Your task to perform on an android device: turn on the 12-hour format for clock Image 0: 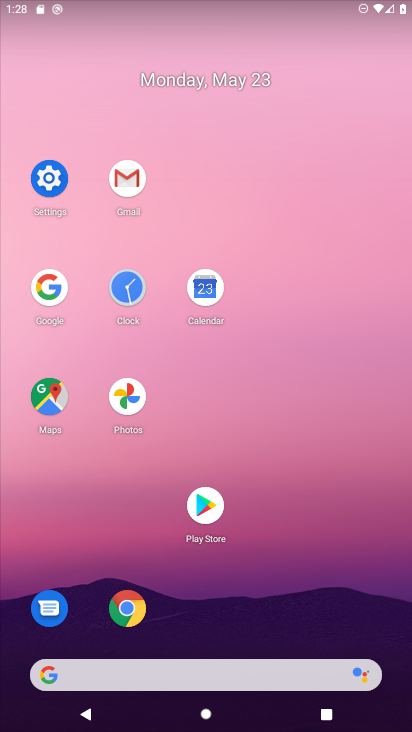
Step 0: click (132, 286)
Your task to perform on an android device: turn on the 12-hour format for clock Image 1: 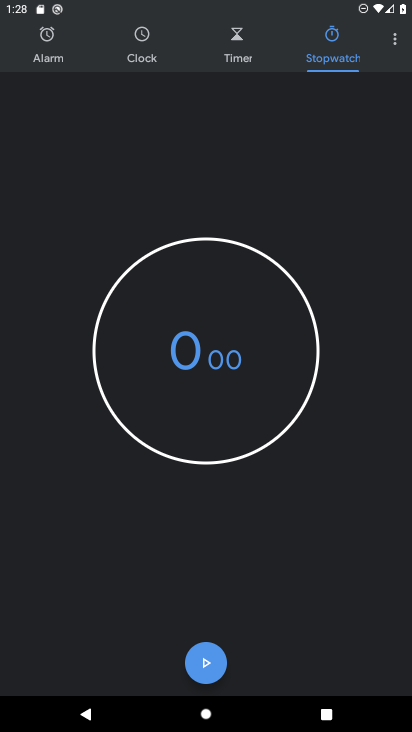
Step 1: click (395, 48)
Your task to perform on an android device: turn on the 12-hour format for clock Image 2: 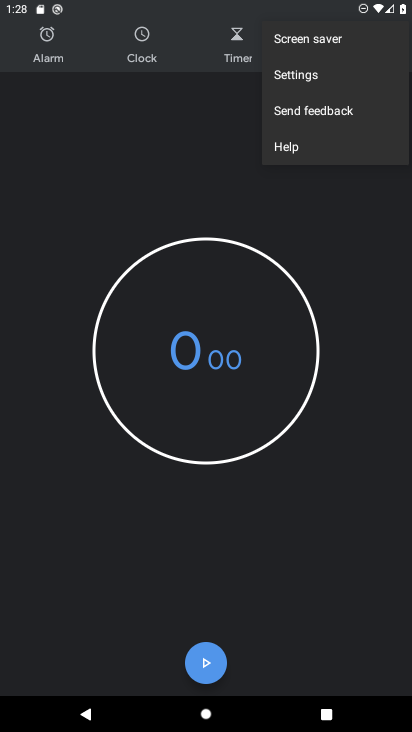
Step 2: click (320, 77)
Your task to perform on an android device: turn on the 12-hour format for clock Image 3: 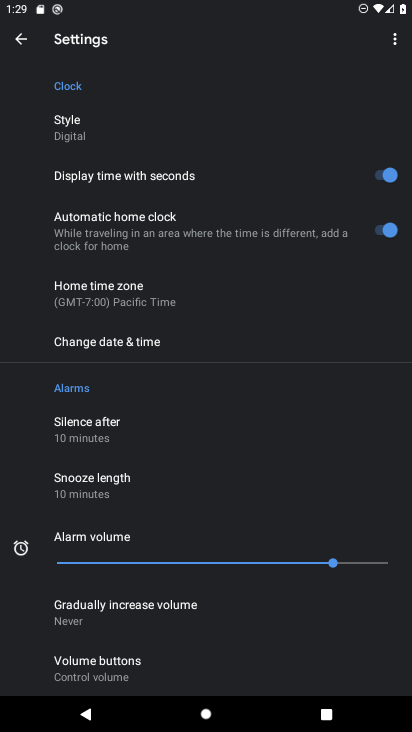
Step 3: drag from (277, 559) to (238, 210)
Your task to perform on an android device: turn on the 12-hour format for clock Image 4: 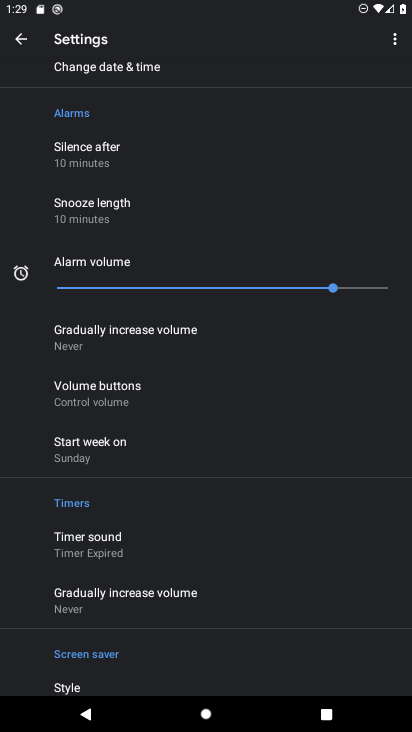
Step 4: drag from (212, 553) to (221, 206)
Your task to perform on an android device: turn on the 12-hour format for clock Image 5: 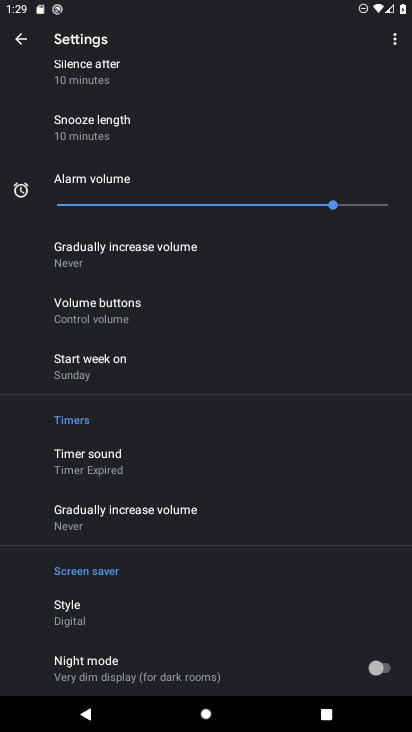
Step 5: drag from (227, 114) to (234, 538)
Your task to perform on an android device: turn on the 12-hour format for clock Image 6: 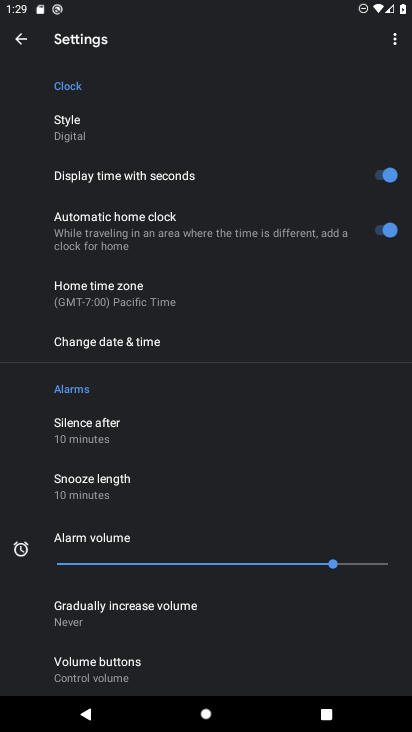
Step 6: click (164, 352)
Your task to perform on an android device: turn on the 12-hour format for clock Image 7: 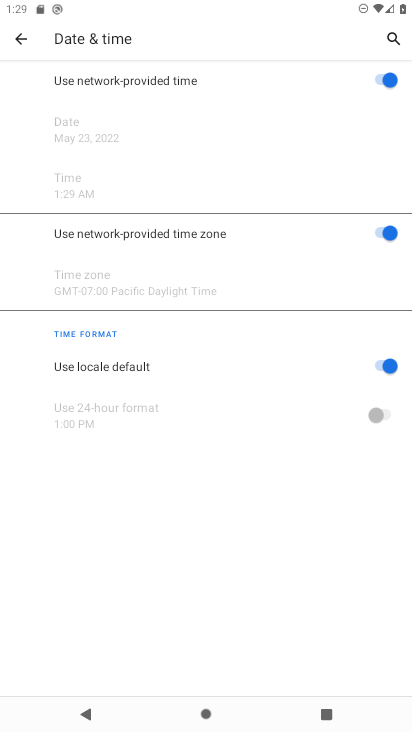
Step 7: task complete